Your task to perform on an android device: choose inbox layout in the gmail app Image 0: 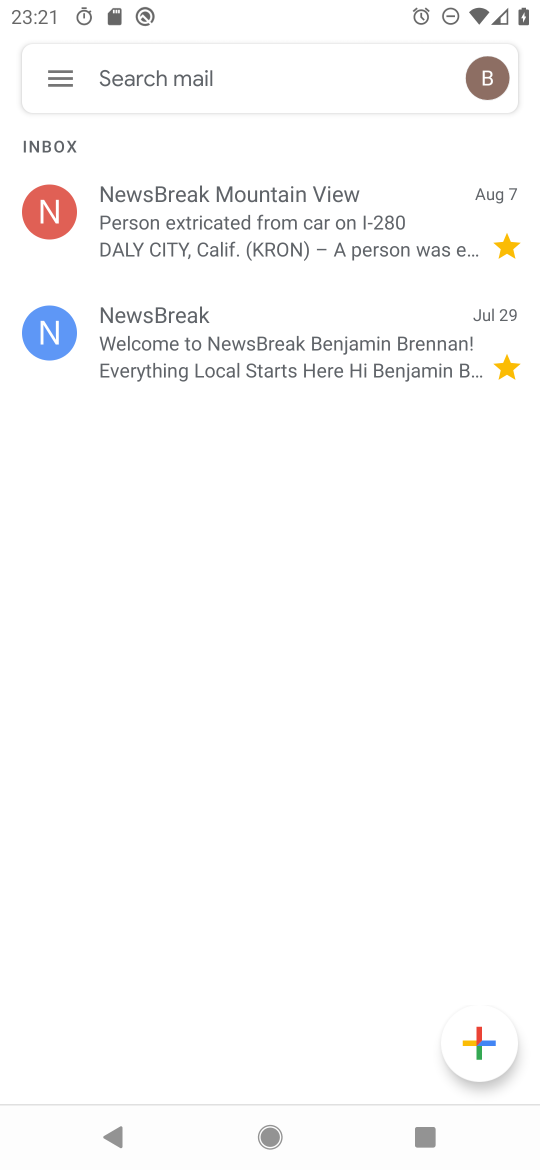
Step 0: drag from (330, 914) to (438, 573)
Your task to perform on an android device: choose inbox layout in the gmail app Image 1: 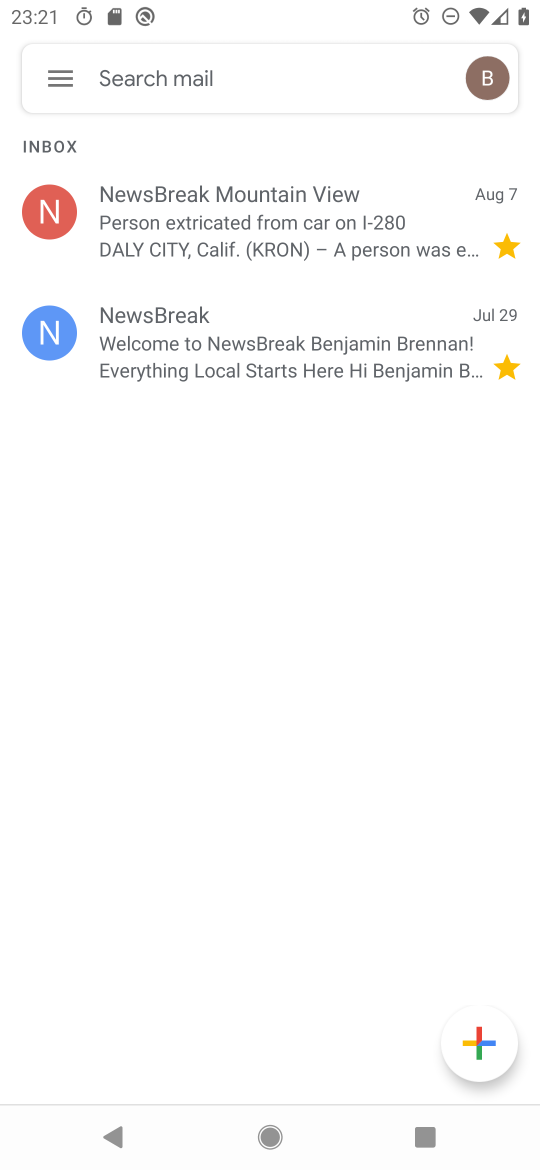
Step 1: click (48, 71)
Your task to perform on an android device: choose inbox layout in the gmail app Image 2: 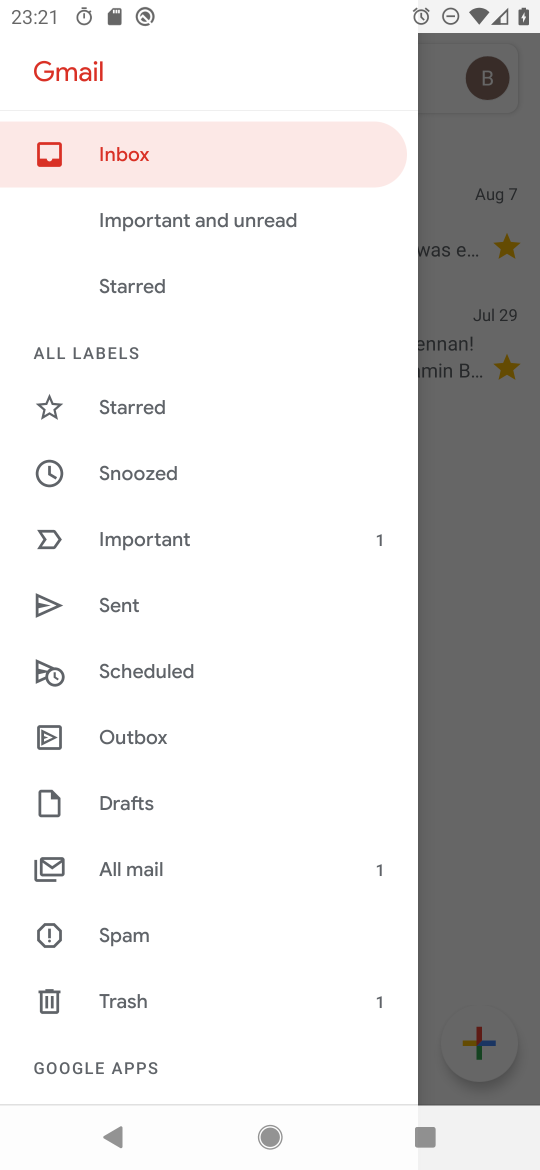
Step 2: click (149, 148)
Your task to perform on an android device: choose inbox layout in the gmail app Image 3: 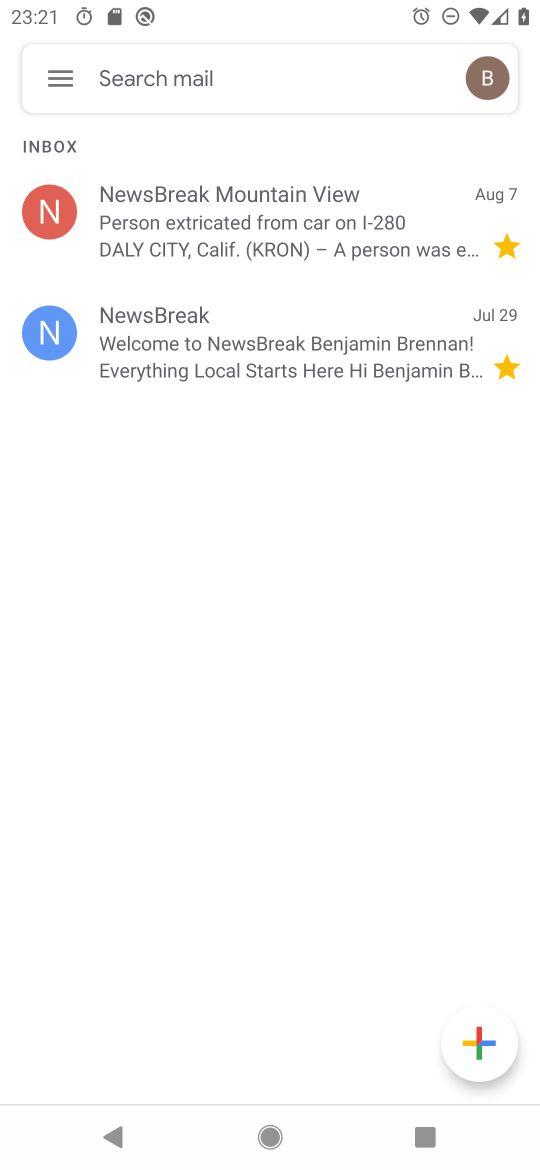
Step 3: task complete